Your task to perform on an android device: turn off airplane mode Image 0: 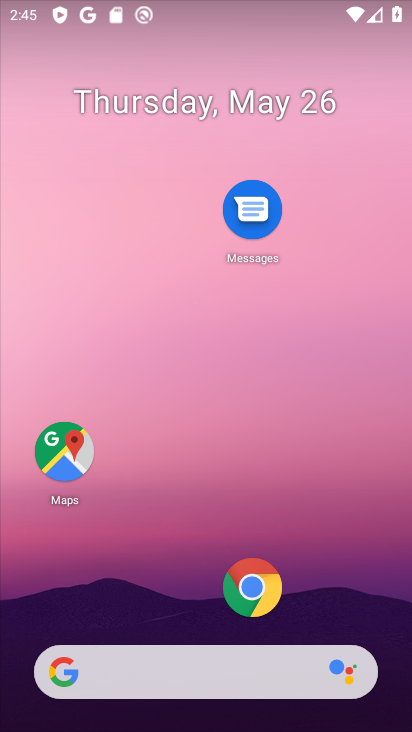
Step 0: drag from (198, 625) to (236, 55)
Your task to perform on an android device: turn off airplane mode Image 1: 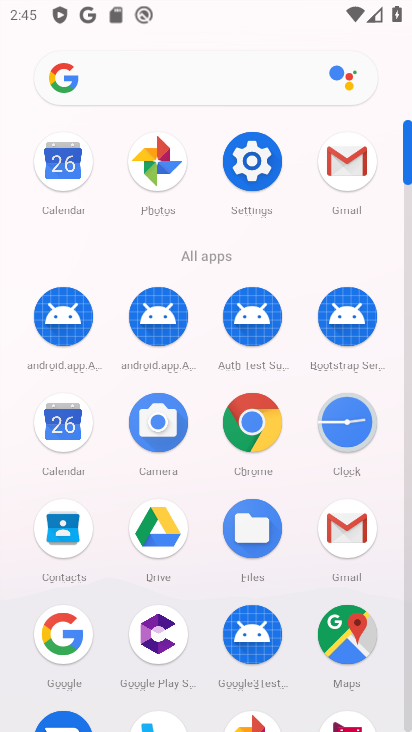
Step 1: click (247, 172)
Your task to perform on an android device: turn off airplane mode Image 2: 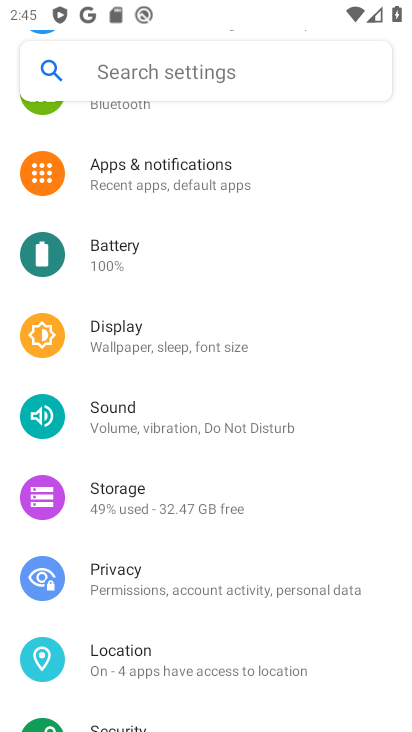
Step 2: drag from (246, 173) to (190, 487)
Your task to perform on an android device: turn off airplane mode Image 3: 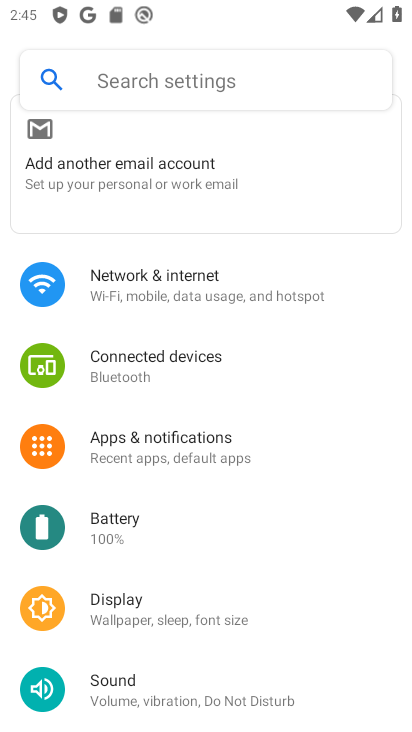
Step 3: click (156, 305)
Your task to perform on an android device: turn off airplane mode Image 4: 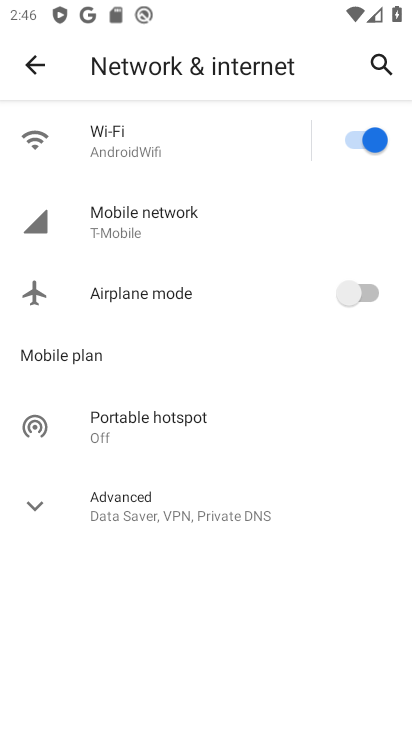
Step 4: task complete